Your task to perform on an android device: open app "LinkedIn" (install if not already installed) and go to login screen Image 0: 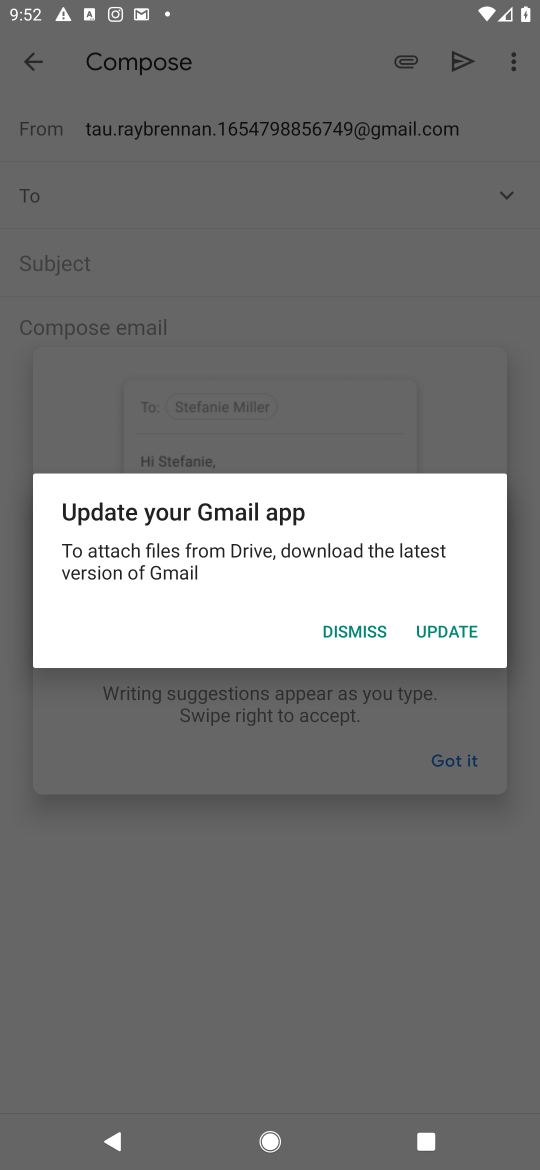
Step 0: press home button
Your task to perform on an android device: open app "LinkedIn" (install if not already installed) and go to login screen Image 1: 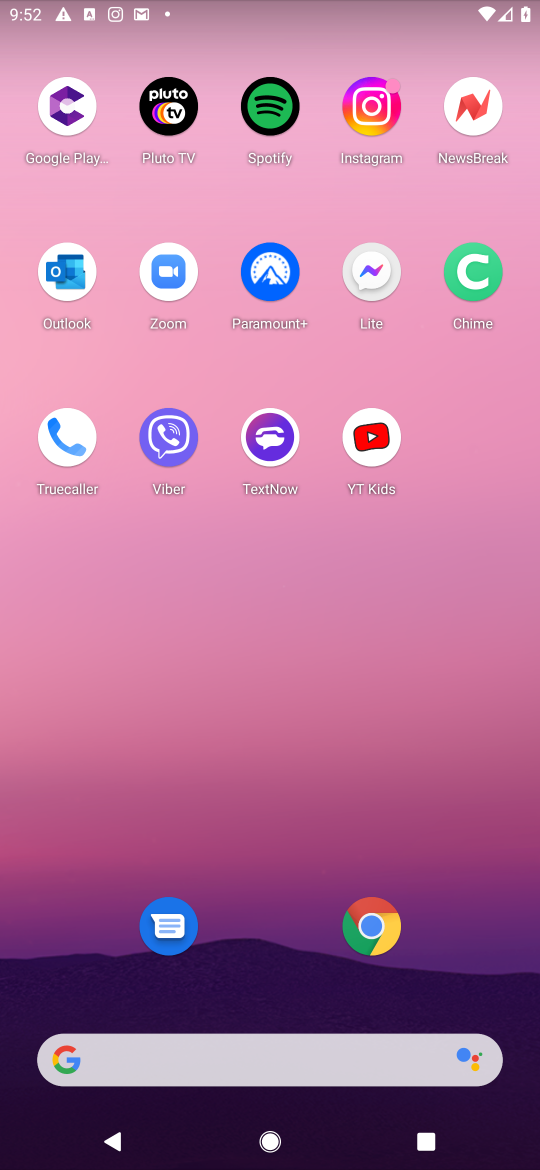
Step 1: drag from (259, 935) to (328, 159)
Your task to perform on an android device: open app "LinkedIn" (install if not already installed) and go to login screen Image 2: 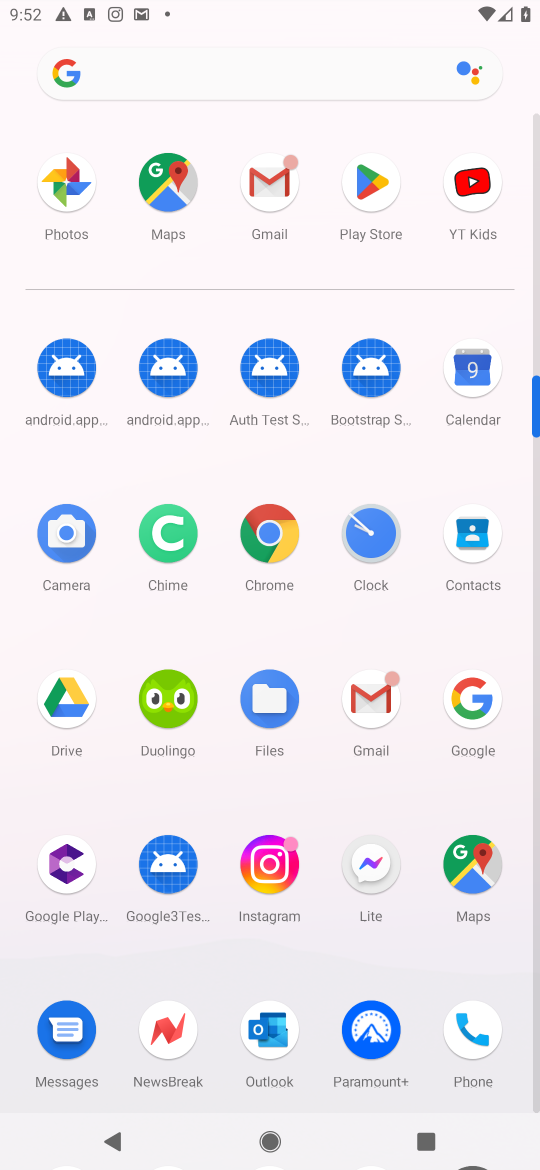
Step 2: click (370, 216)
Your task to perform on an android device: open app "LinkedIn" (install if not already installed) and go to login screen Image 3: 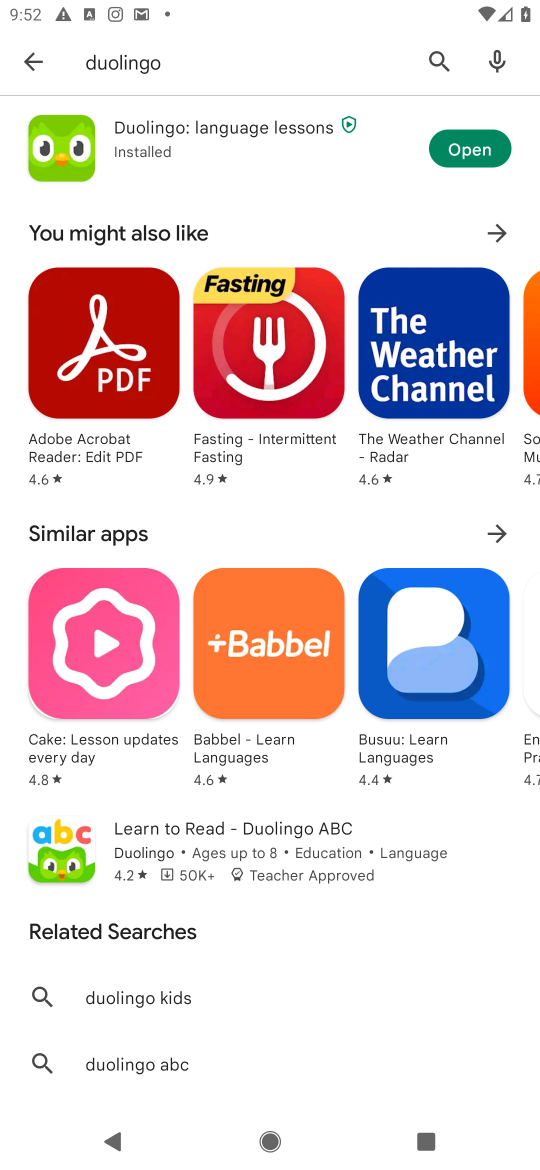
Step 3: click (241, 92)
Your task to perform on an android device: open app "LinkedIn" (install if not already installed) and go to login screen Image 4: 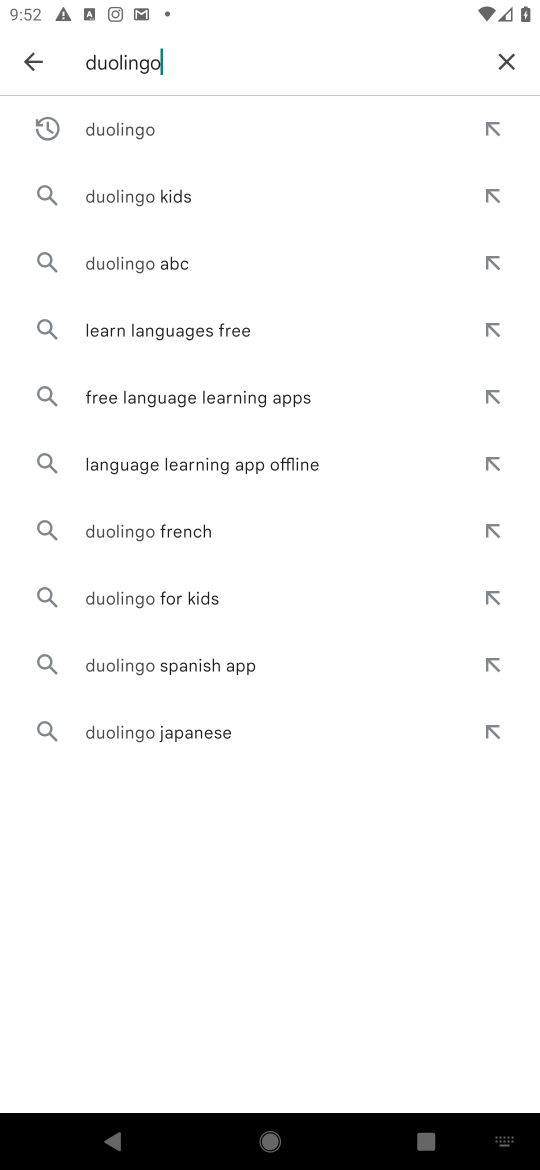
Step 4: click (513, 49)
Your task to perform on an android device: open app "LinkedIn" (install if not already installed) and go to login screen Image 5: 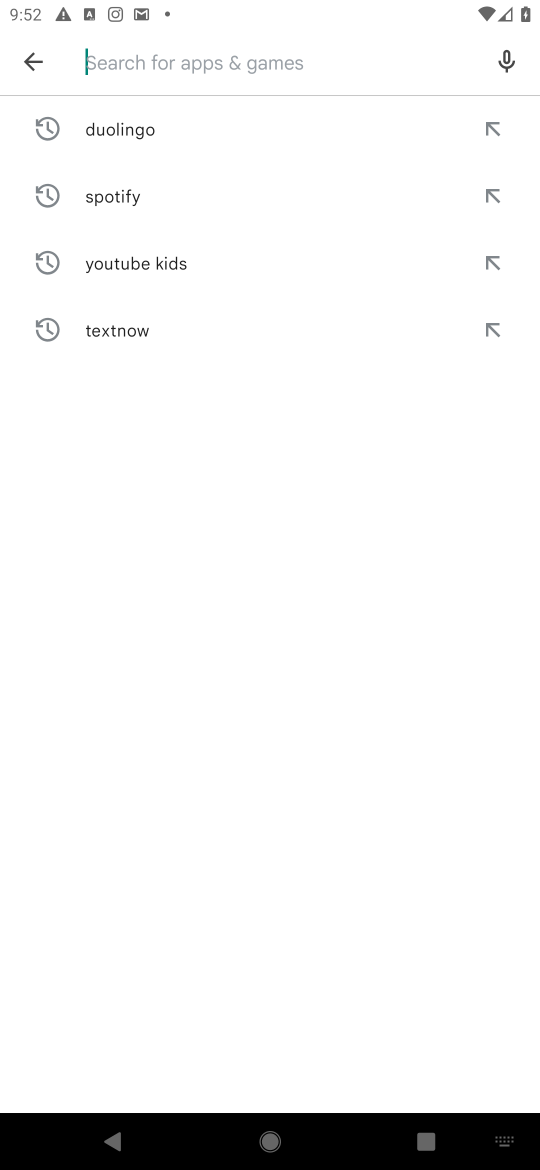
Step 5: type "linkedin"
Your task to perform on an android device: open app "LinkedIn" (install if not already installed) and go to login screen Image 6: 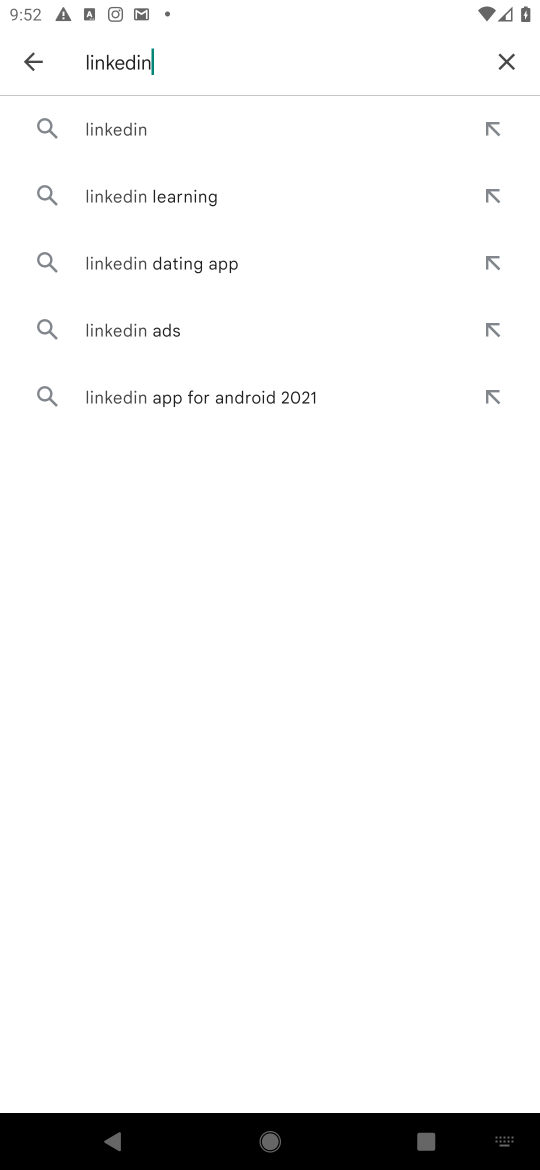
Step 6: click (179, 131)
Your task to perform on an android device: open app "LinkedIn" (install if not already installed) and go to login screen Image 7: 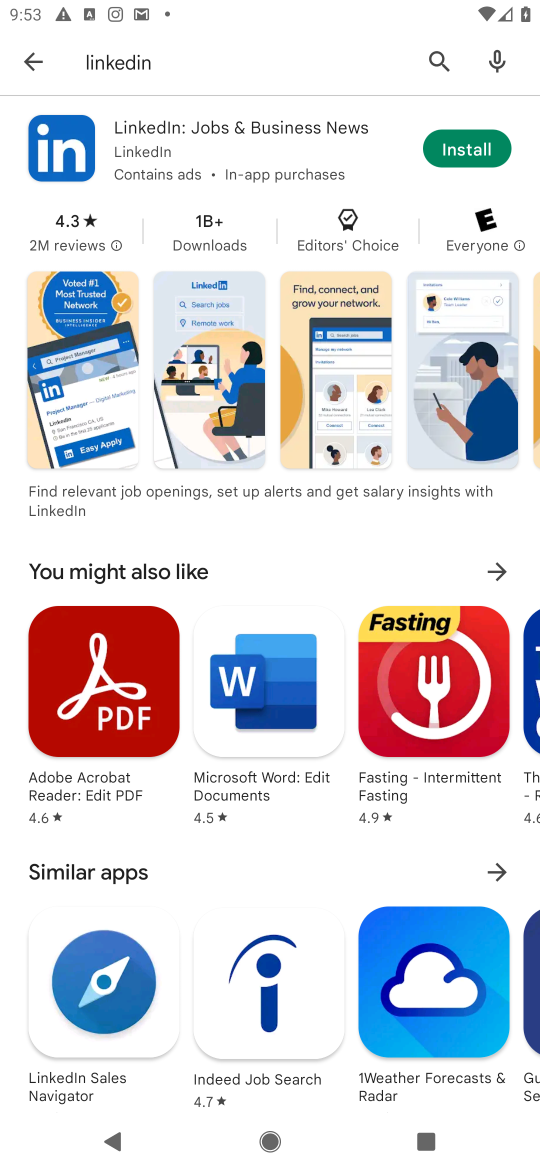
Step 7: click (481, 149)
Your task to perform on an android device: open app "LinkedIn" (install if not already installed) and go to login screen Image 8: 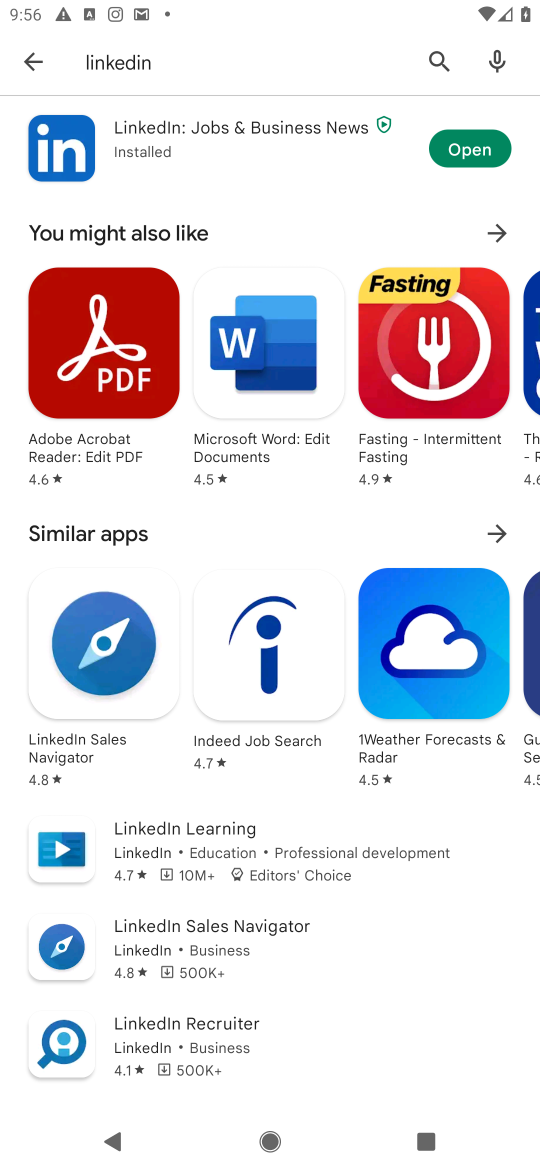
Step 8: click (489, 141)
Your task to perform on an android device: open app "LinkedIn" (install if not already installed) and go to login screen Image 9: 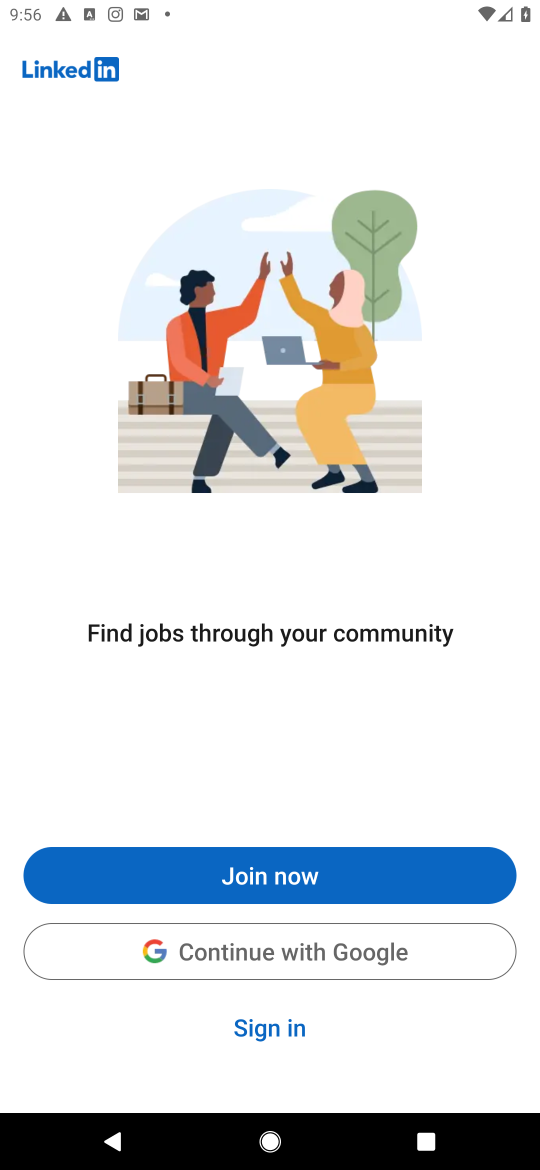
Step 9: click (272, 1016)
Your task to perform on an android device: open app "LinkedIn" (install if not already installed) and go to login screen Image 10: 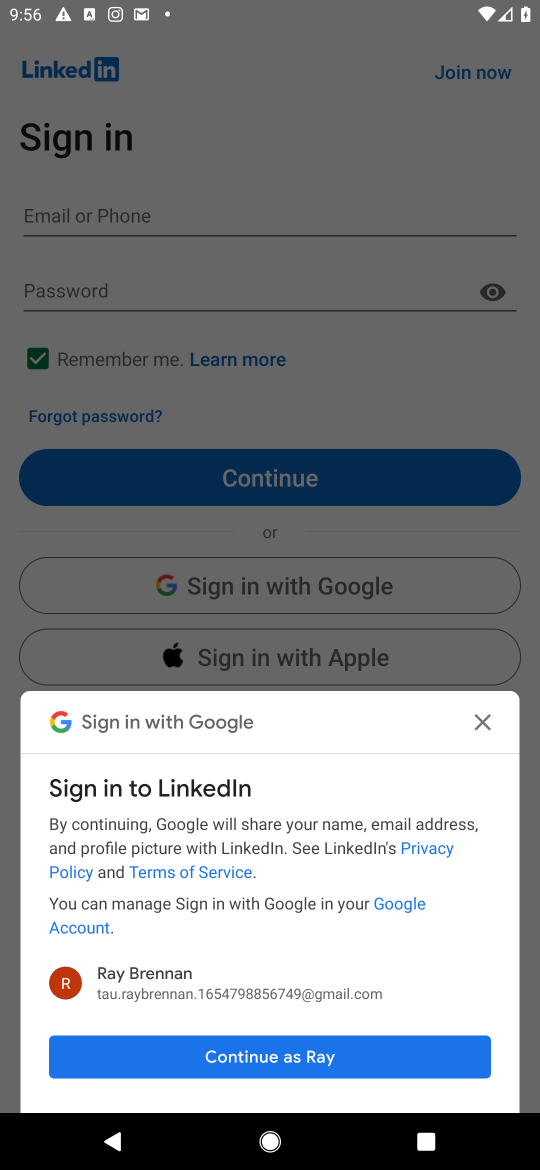
Step 10: task complete